Your task to perform on an android device: stop showing notifications on the lock screen Image 0: 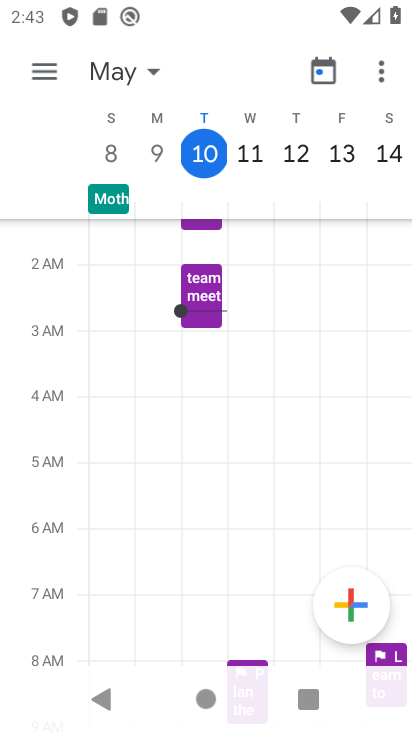
Step 0: press home button
Your task to perform on an android device: stop showing notifications on the lock screen Image 1: 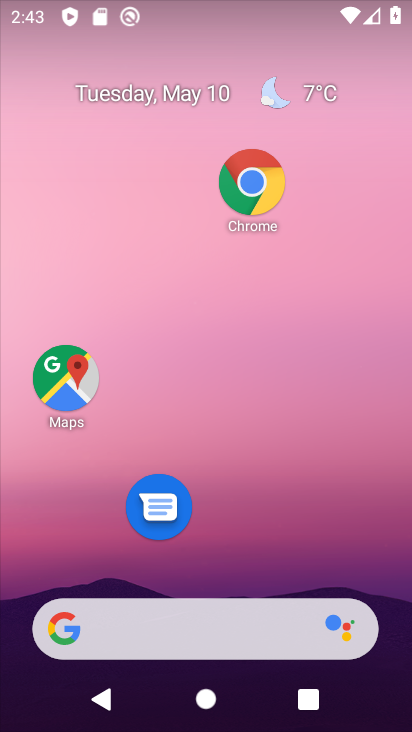
Step 1: drag from (308, 511) to (220, 171)
Your task to perform on an android device: stop showing notifications on the lock screen Image 2: 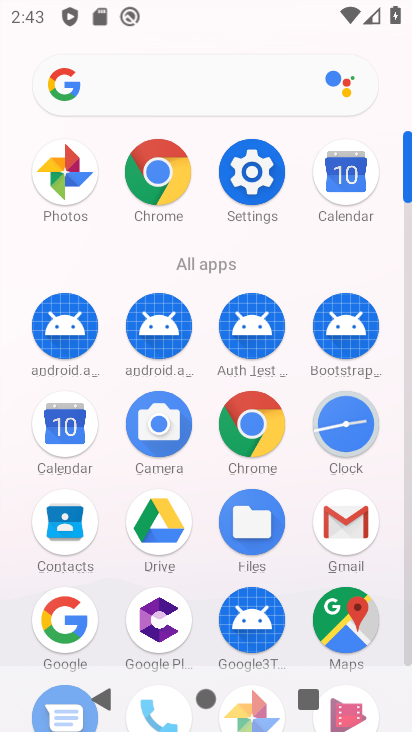
Step 2: click (244, 209)
Your task to perform on an android device: stop showing notifications on the lock screen Image 3: 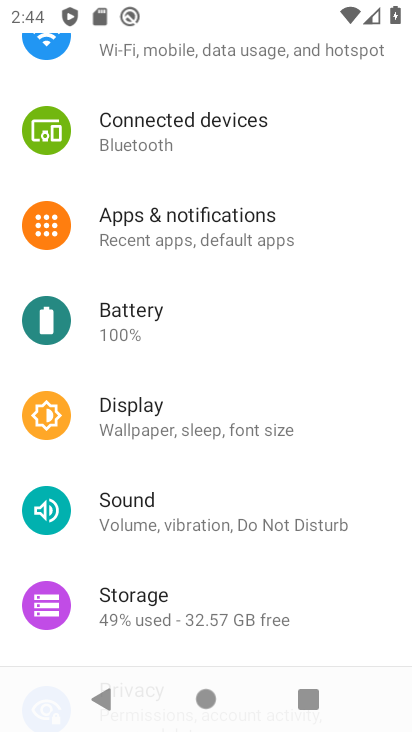
Step 3: click (180, 211)
Your task to perform on an android device: stop showing notifications on the lock screen Image 4: 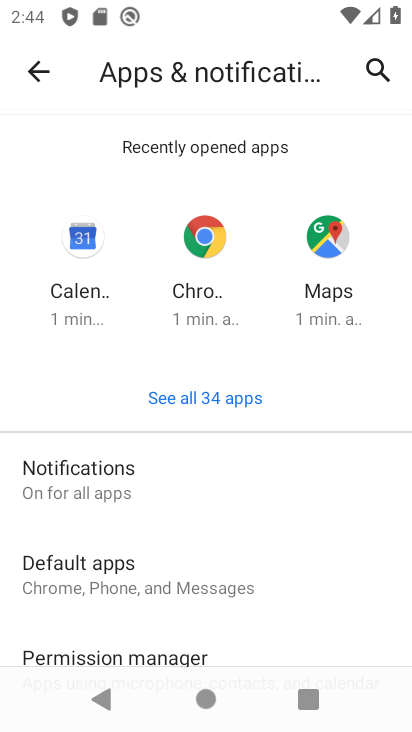
Step 4: drag from (217, 505) to (185, 277)
Your task to perform on an android device: stop showing notifications on the lock screen Image 5: 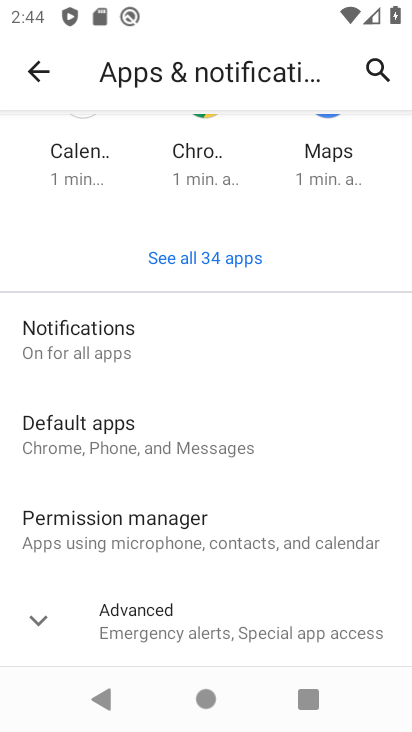
Step 5: drag from (241, 558) to (217, 409)
Your task to perform on an android device: stop showing notifications on the lock screen Image 6: 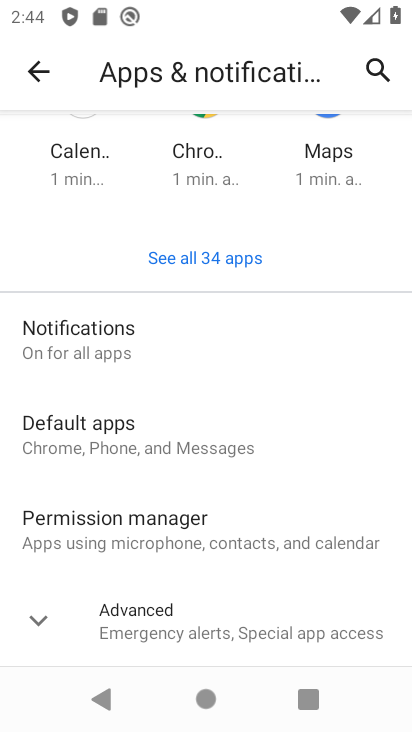
Step 6: click (246, 594)
Your task to perform on an android device: stop showing notifications on the lock screen Image 7: 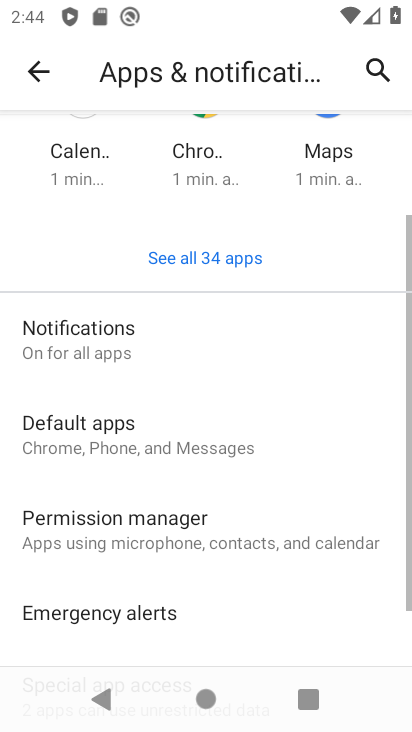
Step 7: drag from (246, 577) to (180, 292)
Your task to perform on an android device: stop showing notifications on the lock screen Image 8: 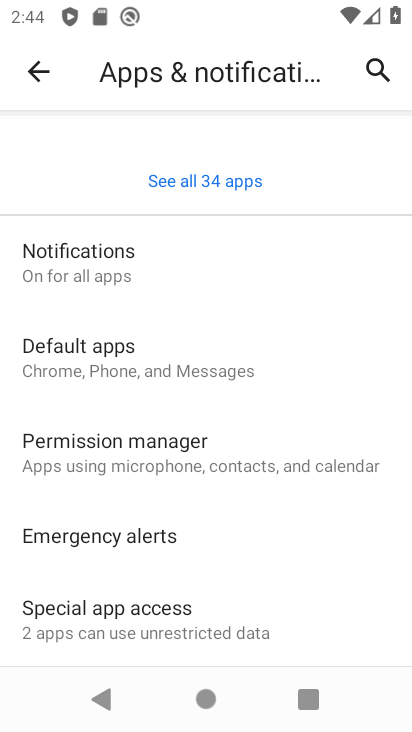
Step 8: click (130, 299)
Your task to perform on an android device: stop showing notifications on the lock screen Image 9: 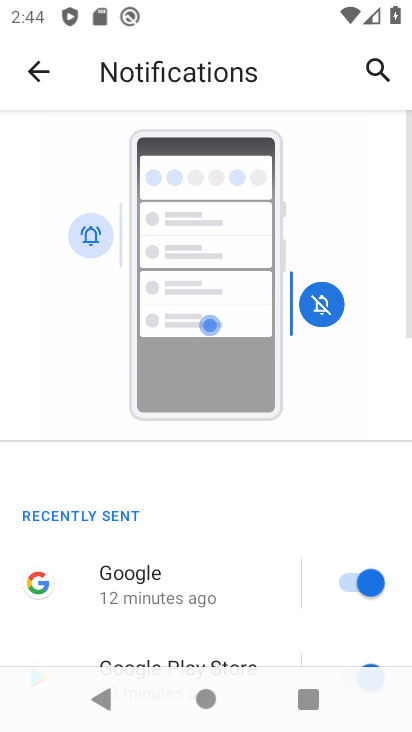
Step 9: drag from (273, 641) to (226, 74)
Your task to perform on an android device: stop showing notifications on the lock screen Image 10: 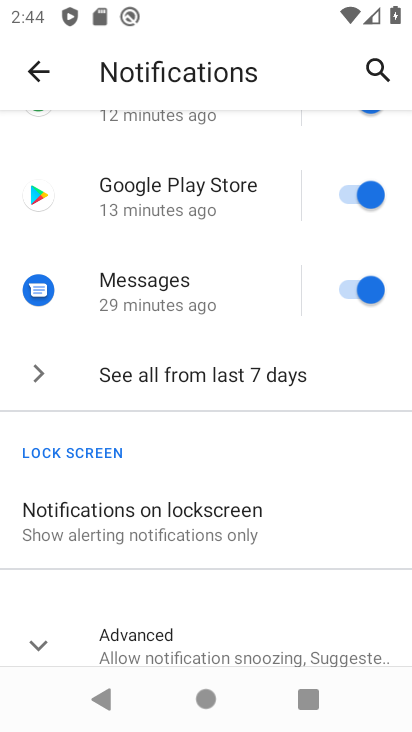
Step 10: click (247, 521)
Your task to perform on an android device: stop showing notifications on the lock screen Image 11: 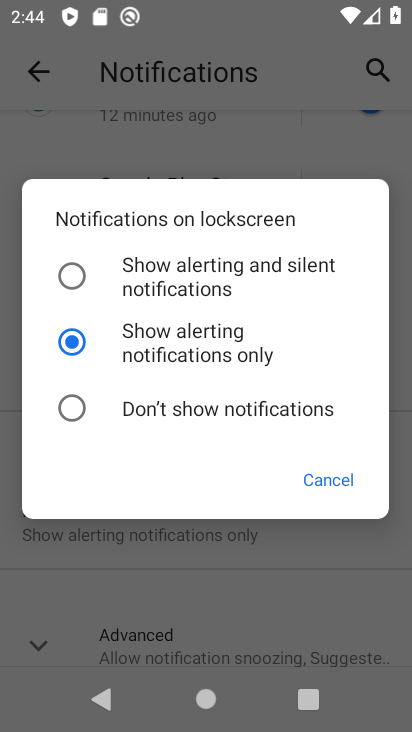
Step 11: click (243, 434)
Your task to perform on an android device: stop showing notifications on the lock screen Image 12: 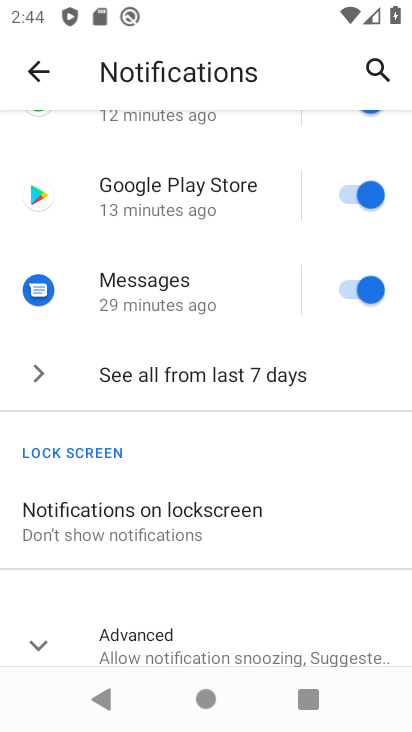
Step 12: task complete